Your task to perform on an android device: Add "macbook" to the cart on newegg, then select checkout. Image 0: 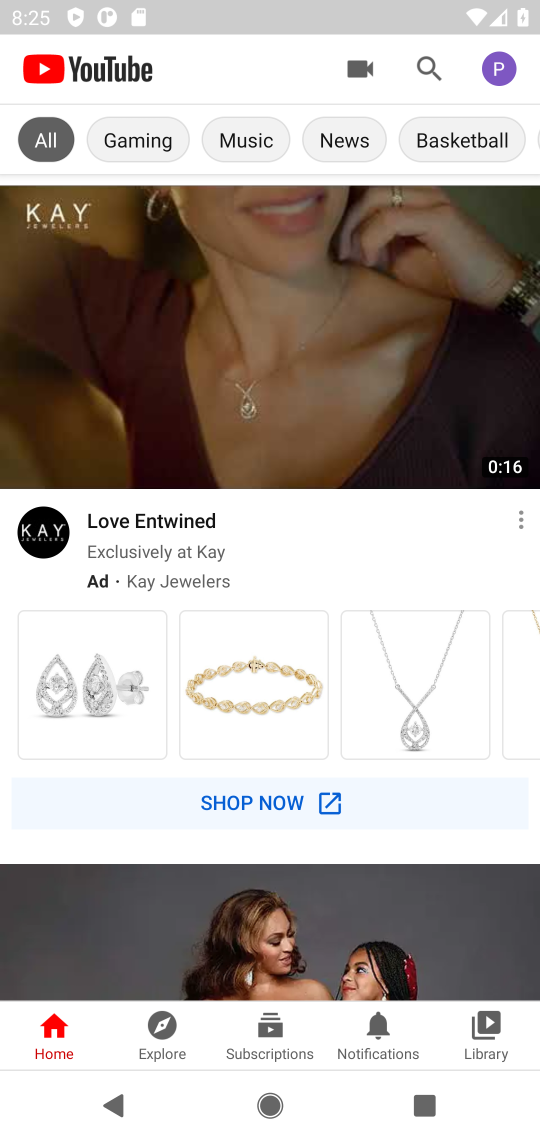
Step 0: task complete